Your task to perform on an android device: check android version Image 0: 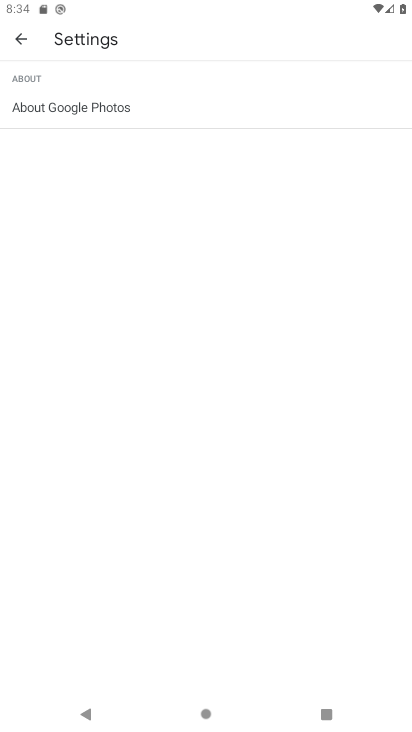
Step 0: press home button
Your task to perform on an android device: check android version Image 1: 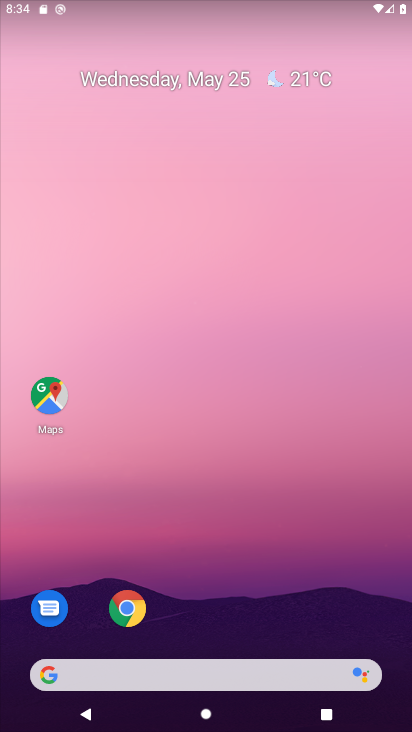
Step 1: drag from (258, 724) to (241, 28)
Your task to perform on an android device: check android version Image 2: 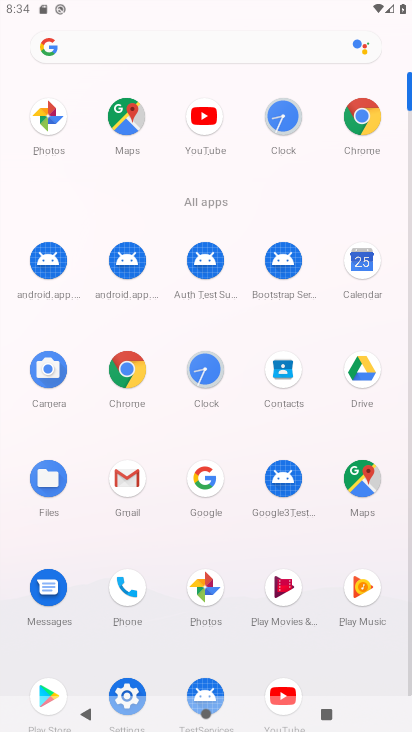
Step 2: click (132, 688)
Your task to perform on an android device: check android version Image 3: 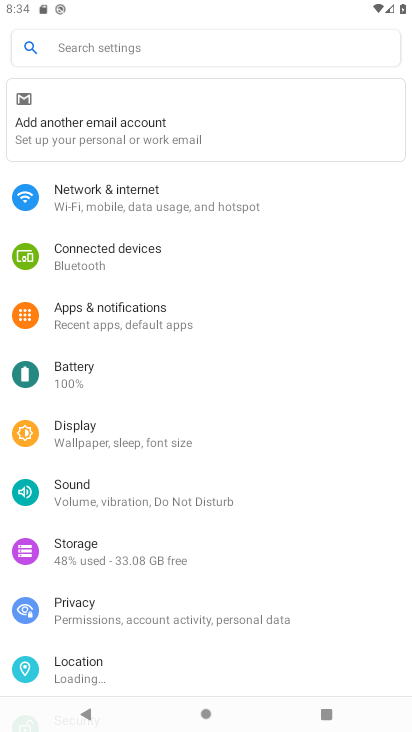
Step 3: drag from (127, 617) to (156, 142)
Your task to perform on an android device: check android version Image 4: 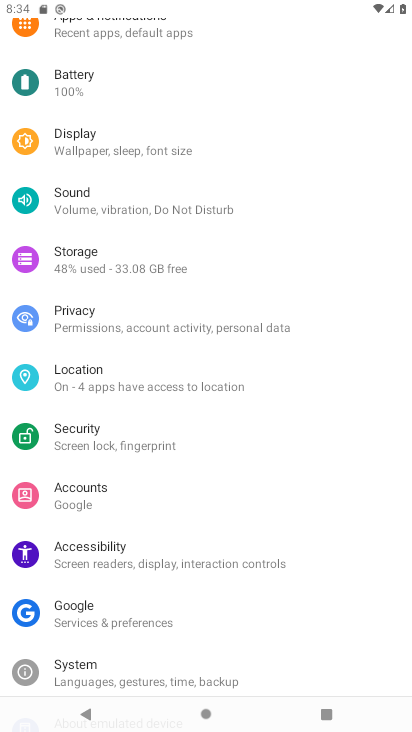
Step 4: drag from (162, 648) to (177, 117)
Your task to perform on an android device: check android version Image 5: 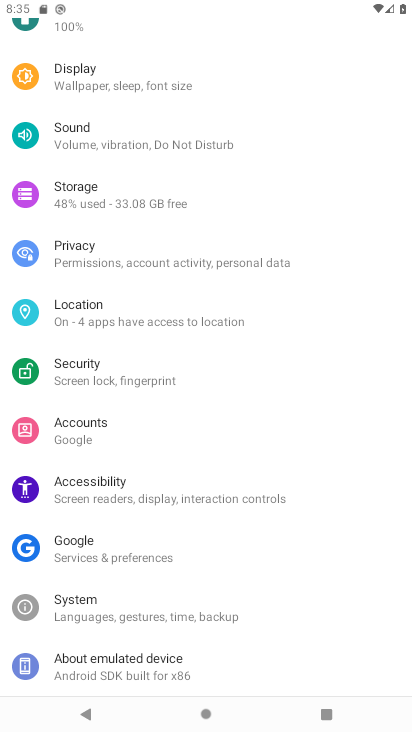
Step 5: click (114, 667)
Your task to perform on an android device: check android version Image 6: 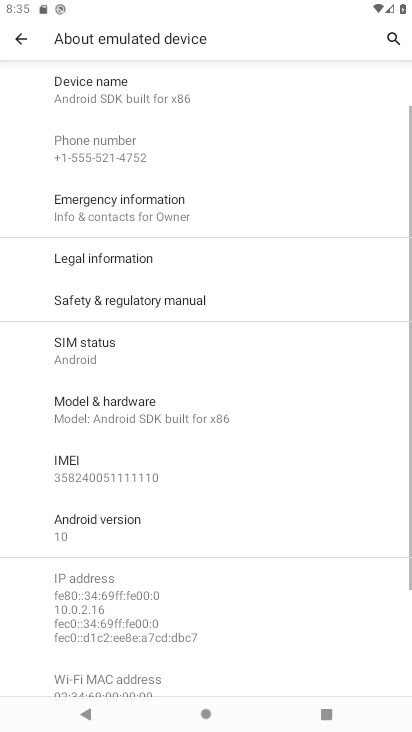
Step 6: drag from (163, 628) to (168, 196)
Your task to perform on an android device: check android version Image 7: 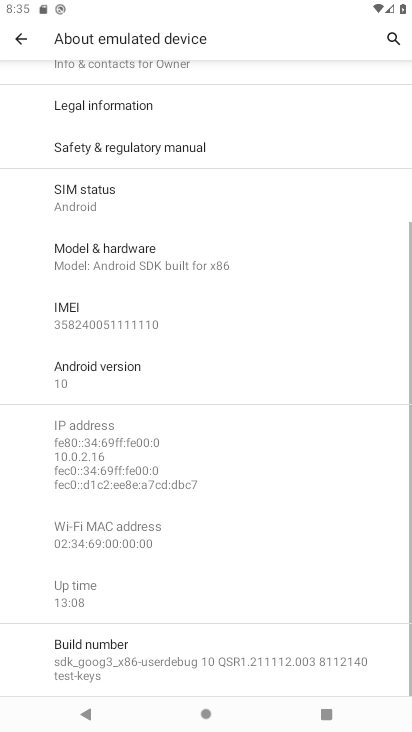
Step 7: click (110, 372)
Your task to perform on an android device: check android version Image 8: 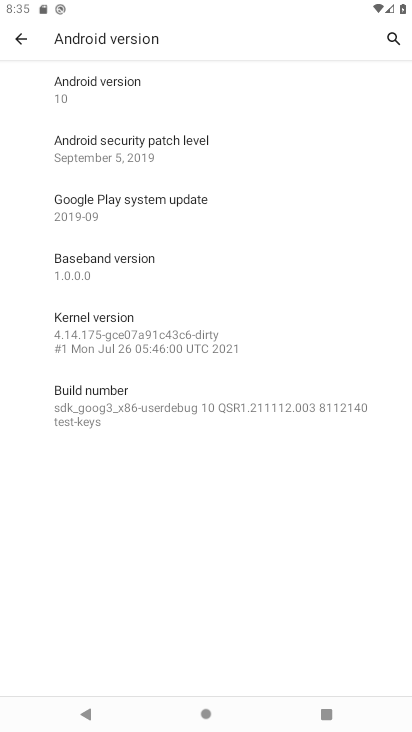
Step 8: task complete